Your task to perform on an android device: empty trash in the gmail app Image 0: 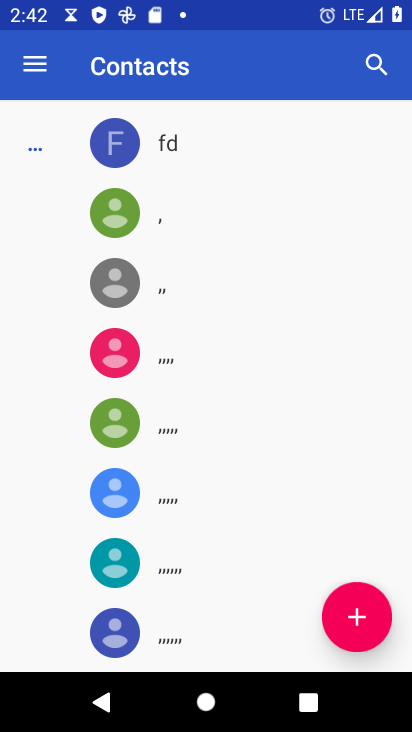
Step 0: press home button
Your task to perform on an android device: empty trash in the gmail app Image 1: 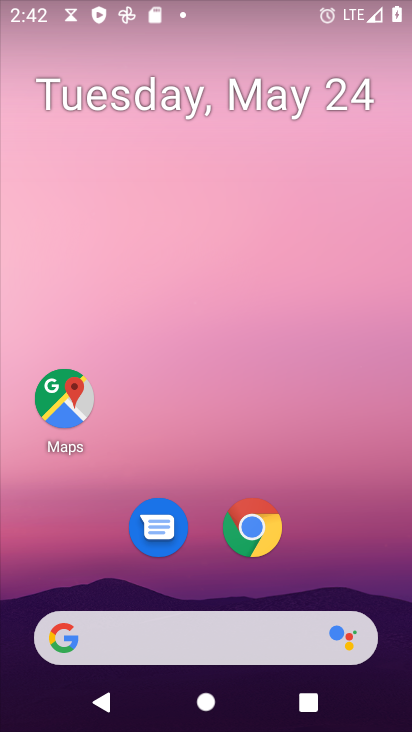
Step 1: drag from (211, 638) to (314, 177)
Your task to perform on an android device: empty trash in the gmail app Image 2: 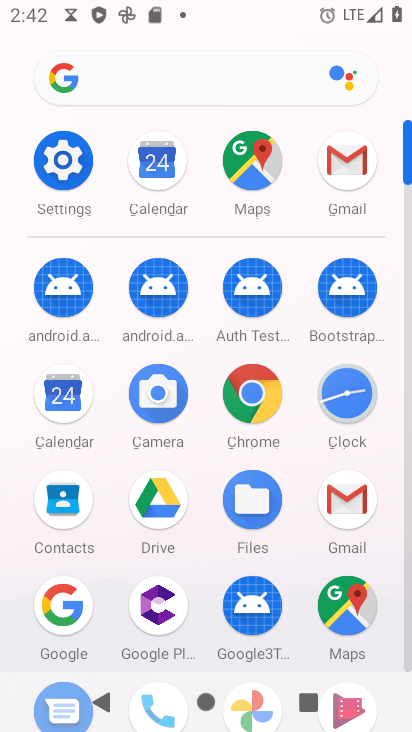
Step 2: click (348, 170)
Your task to perform on an android device: empty trash in the gmail app Image 3: 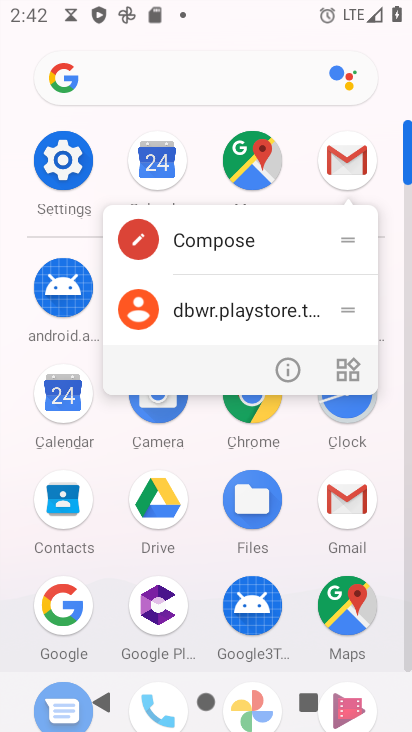
Step 3: click (348, 171)
Your task to perform on an android device: empty trash in the gmail app Image 4: 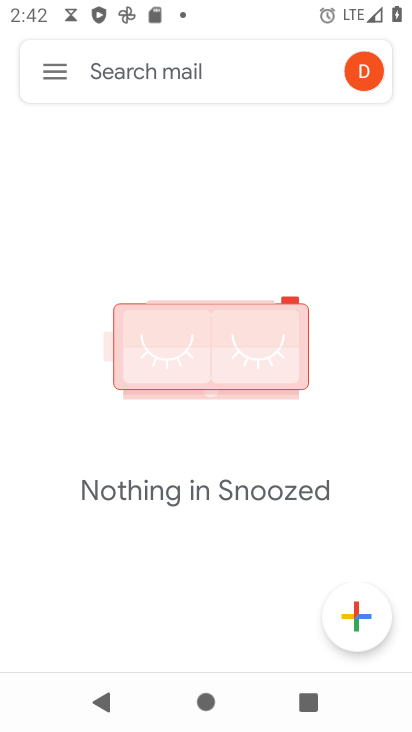
Step 4: click (57, 74)
Your task to perform on an android device: empty trash in the gmail app Image 5: 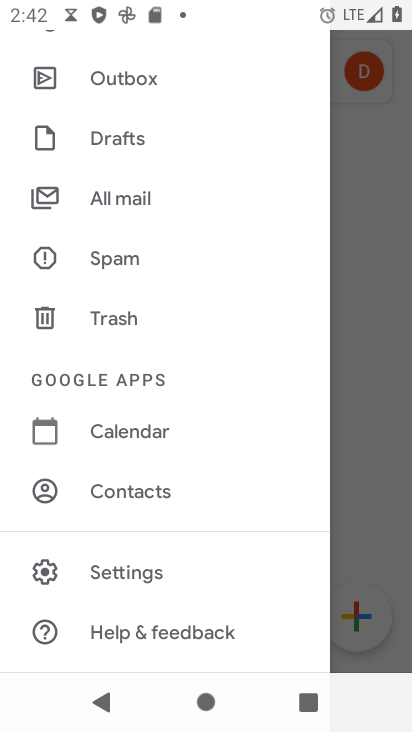
Step 5: click (123, 310)
Your task to perform on an android device: empty trash in the gmail app Image 6: 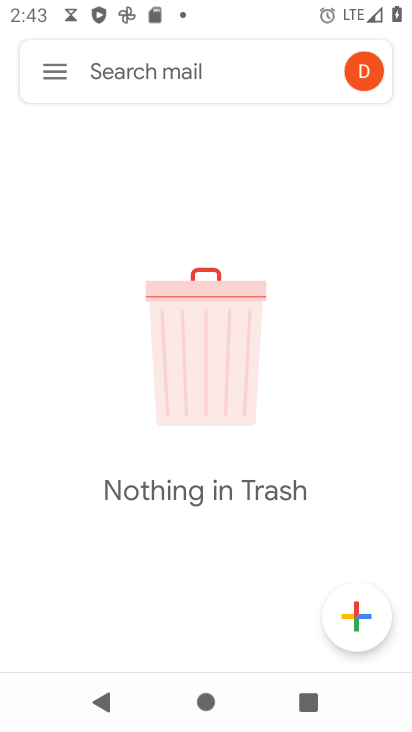
Step 6: task complete